Your task to perform on an android device: uninstall "Life360: Find Family & Friends" Image 0: 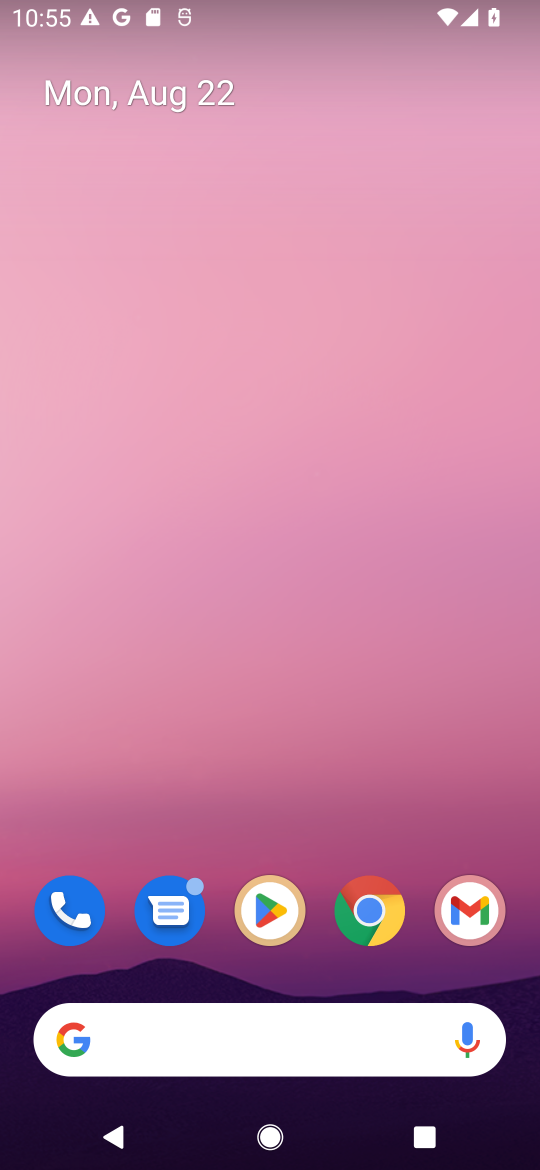
Step 0: click (242, 913)
Your task to perform on an android device: uninstall "Life360: Find Family & Friends" Image 1: 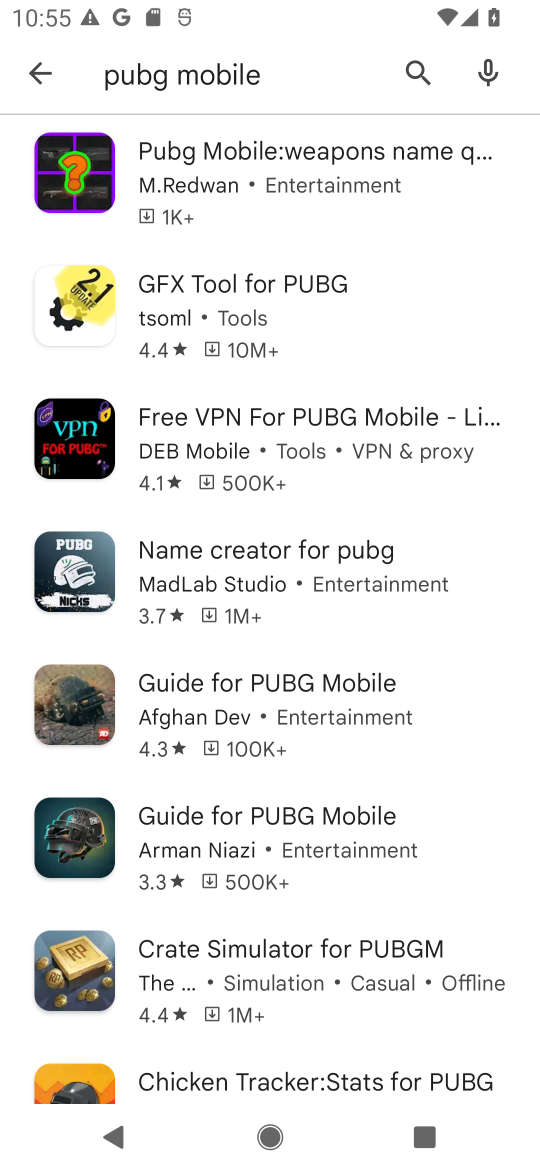
Step 1: click (437, 74)
Your task to perform on an android device: uninstall "Life360: Find Family & Friends" Image 2: 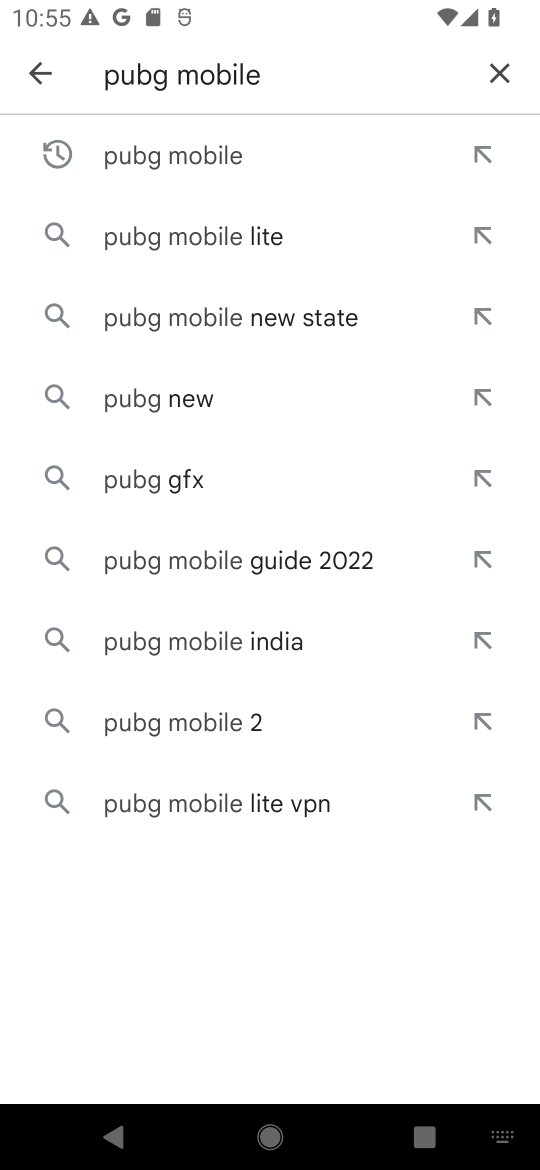
Step 2: click (501, 83)
Your task to perform on an android device: uninstall "Life360: Find Family & Friends" Image 3: 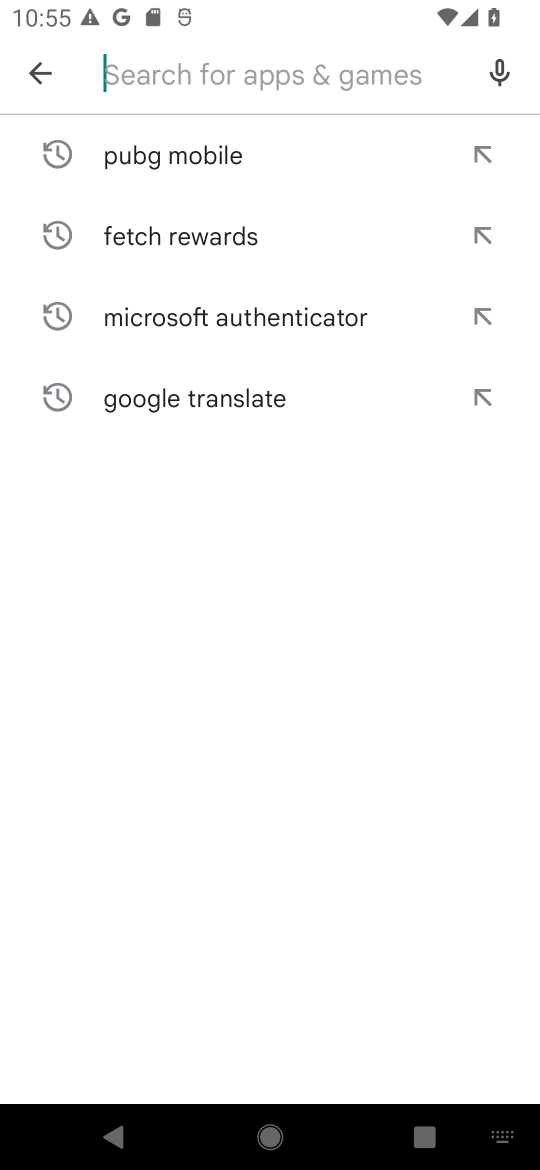
Step 3: type "Life360: Find Family & Friends"
Your task to perform on an android device: uninstall "Life360: Find Family & Friends" Image 4: 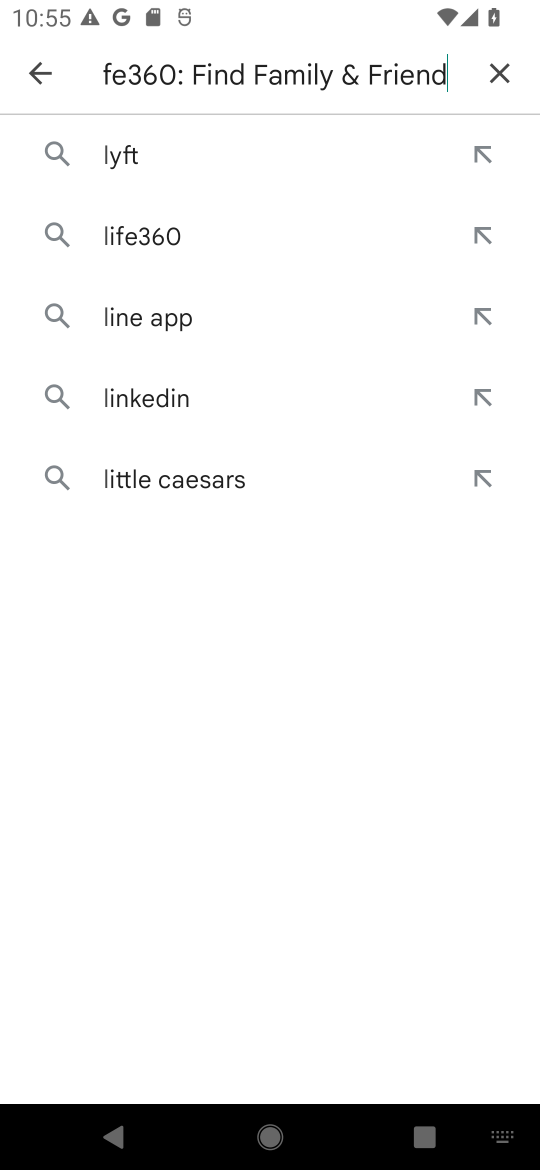
Step 4: type ""
Your task to perform on an android device: uninstall "Life360: Find Family & Friends" Image 5: 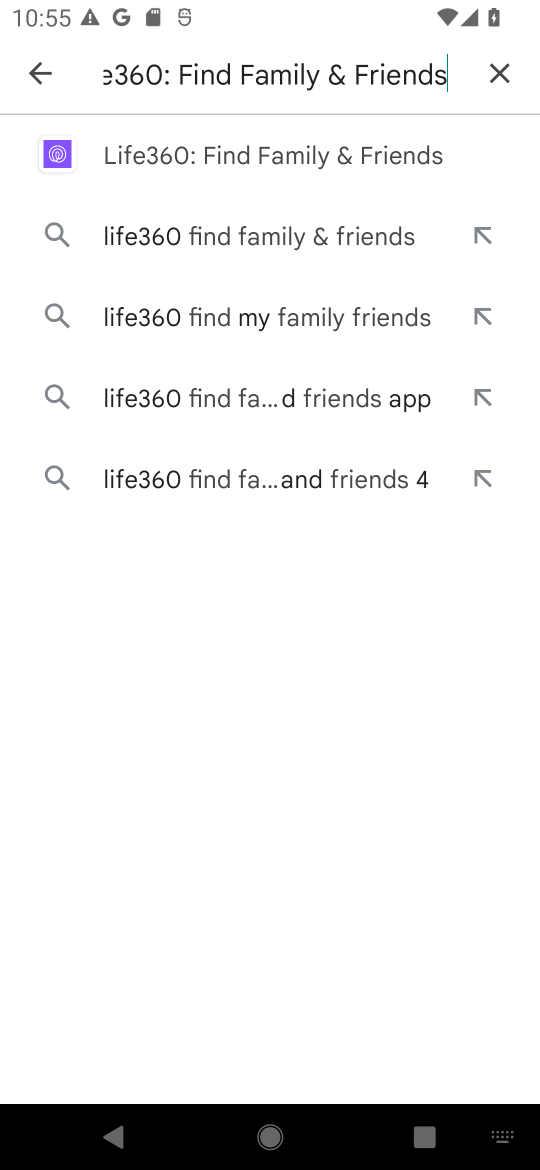
Step 5: click (219, 141)
Your task to perform on an android device: uninstall "Life360: Find Family & Friends" Image 6: 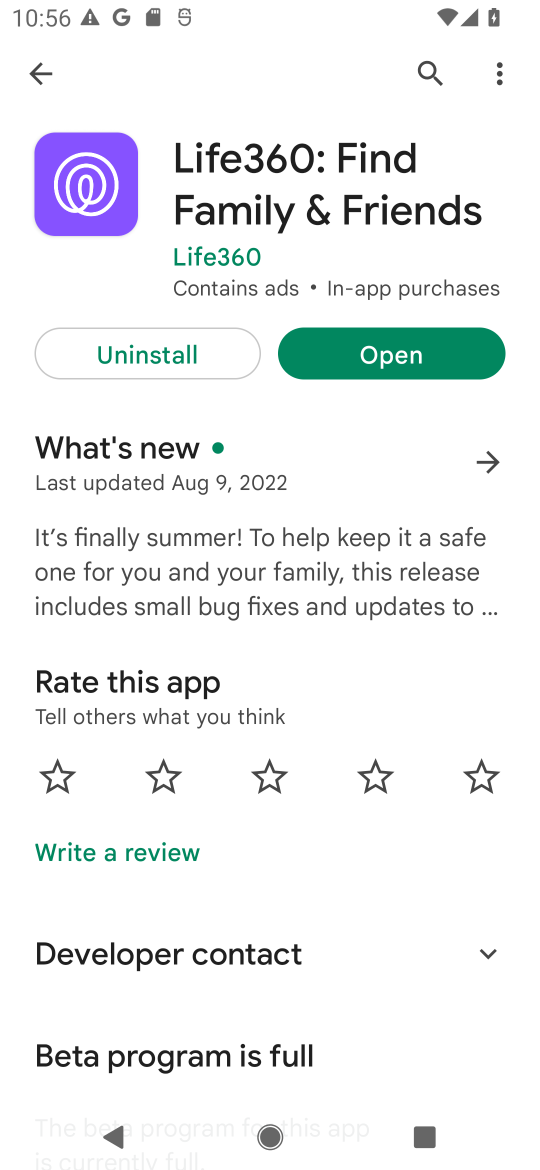
Step 6: click (220, 350)
Your task to perform on an android device: uninstall "Life360: Find Family & Friends" Image 7: 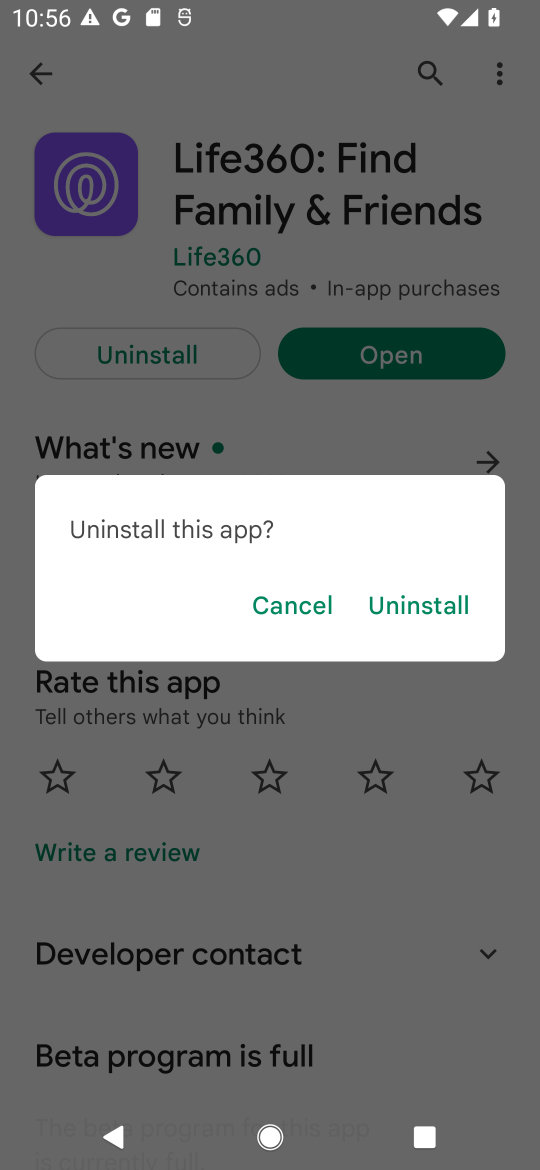
Step 7: click (468, 607)
Your task to perform on an android device: uninstall "Life360: Find Family & Friends" Image 8: 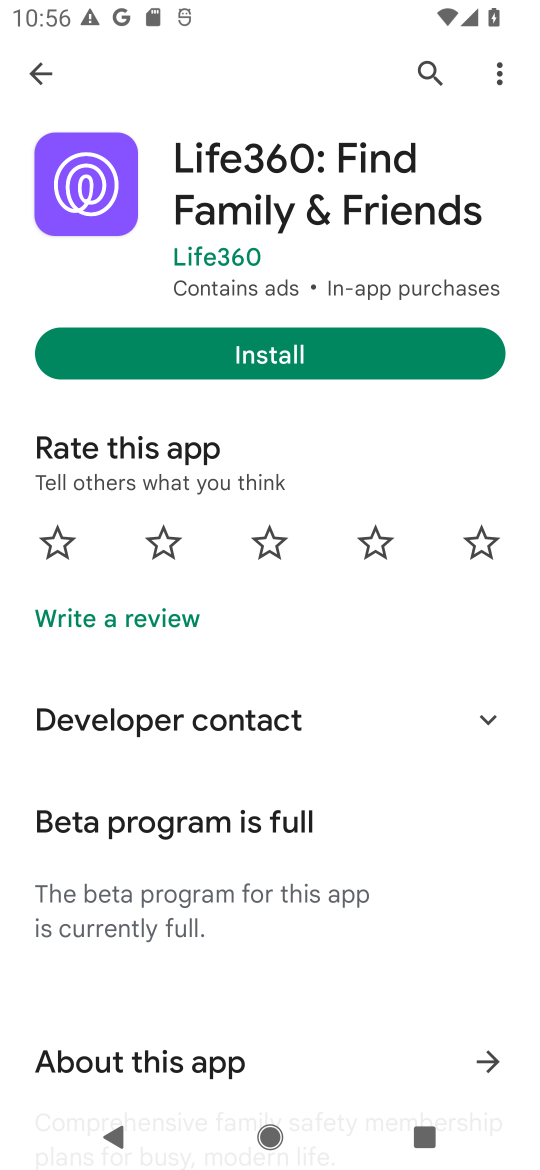
Step 8: task complete